Your task to perform on an android device: Check the news Image 0: 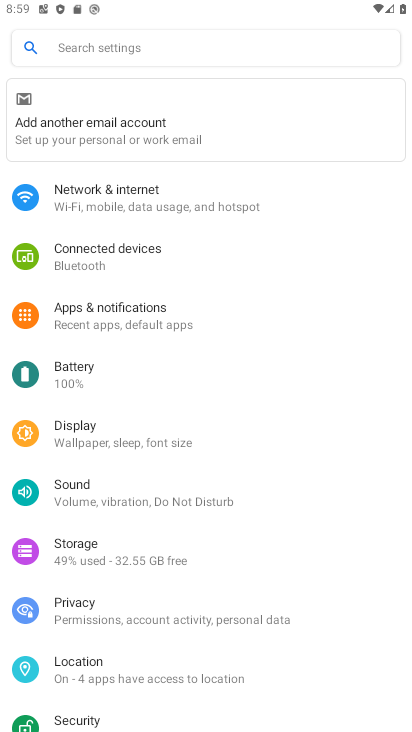
Step 0: press home button
Your task to perform on an android device: Check the news Image 1: 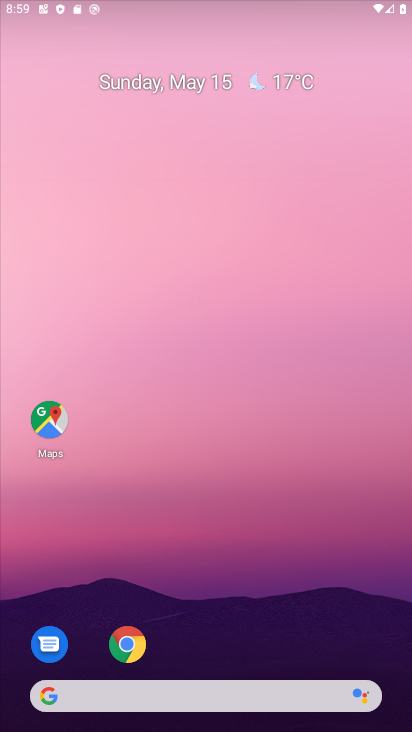
Step 1: drag from (237, 685) to (278, 321)
Your task to perform on an android device: Check the news Image 2: 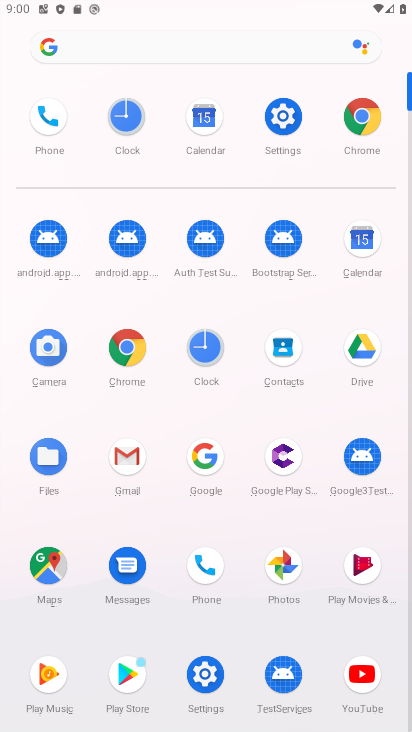
Step 2: click (178, 57)
Your task to perform on an android device: Check the news Image 3: 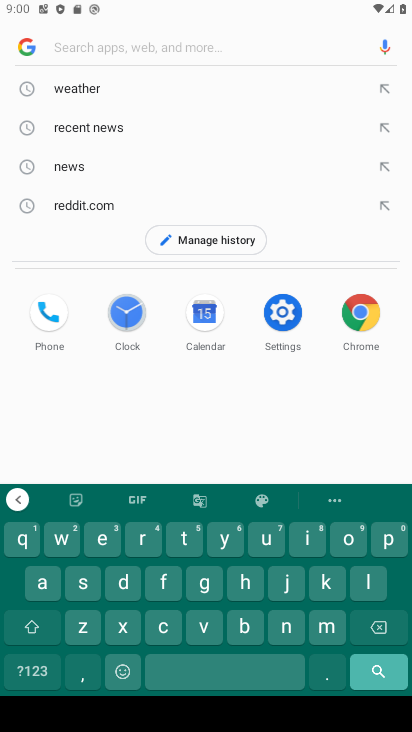
Step 3: click (91, 153)
Your task to perform on an android device: Check the news Image 4: 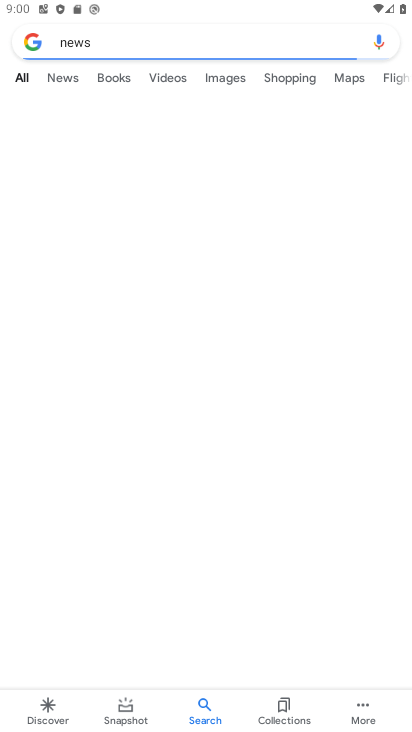
Step 4: task complete